Your task to perform on an android device: Open ESPN.com Image 0: 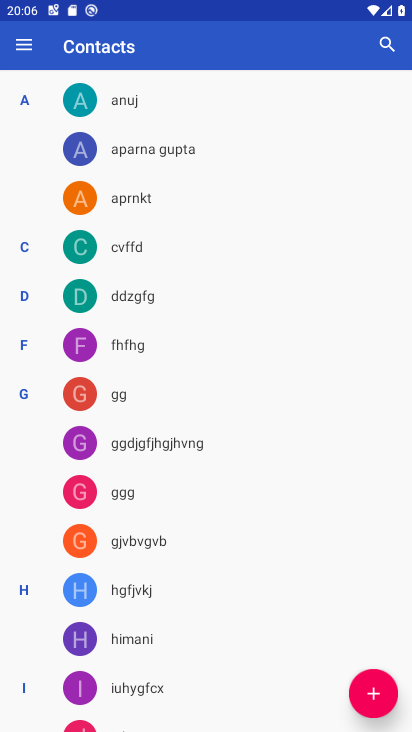
Step 0: press home button
Your task to perform on an android device: Open ESPN.com Image 1: 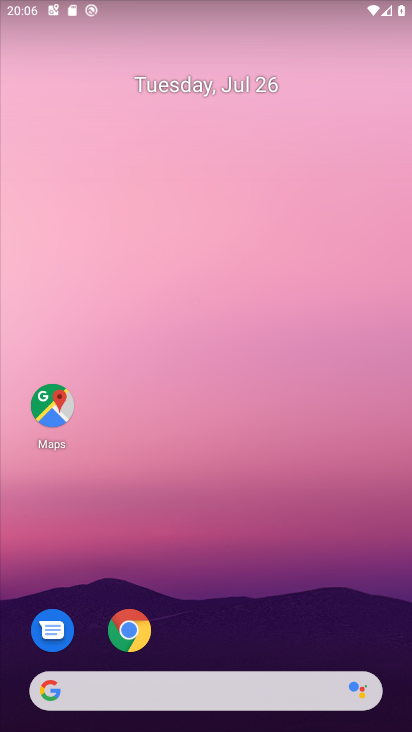
Step 1: click (132, 624)
Your task to perform on an android device: Open ESPN.com Image 2: 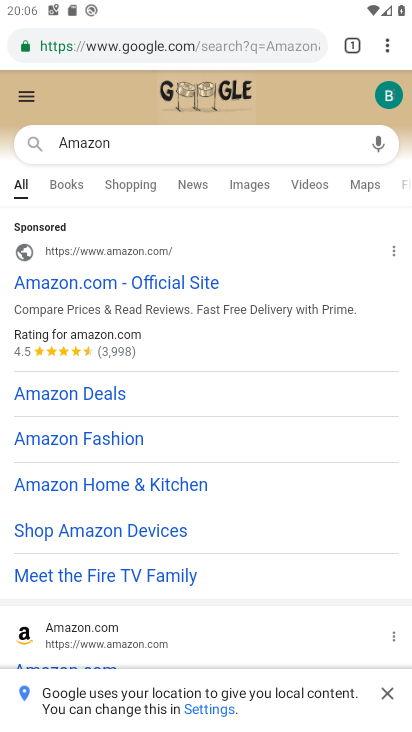
Step 2: click (293, 41)
Your task to perform on an android device: Open ESPN.com Image 3: 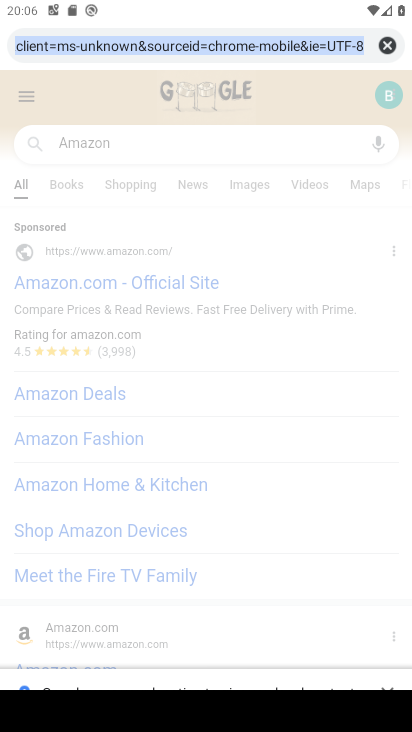
Step 3: click (391, 47)
Your task to perform on an android device: Open ESPN.com Image 4: 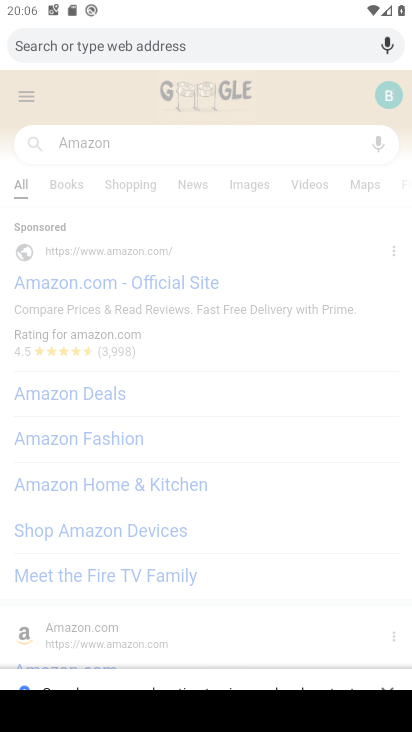
Step 4: type "ESPN.com"
Your task to perform on an android device: Open ESPN.com Image 5: 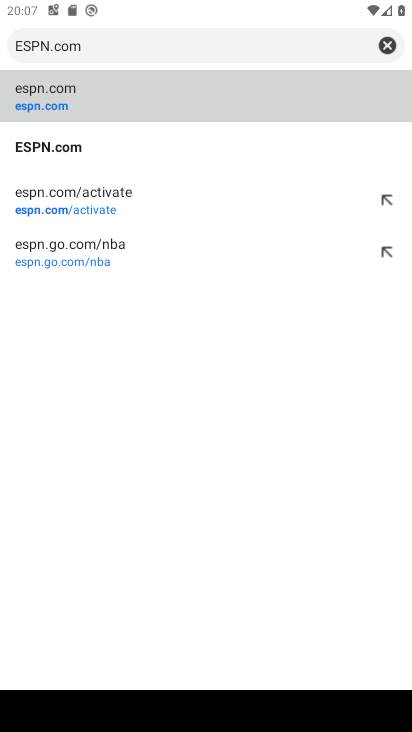
Step 5: click (29, 146)
Your task to perform on an android device: Open ESPN.com Image 6: 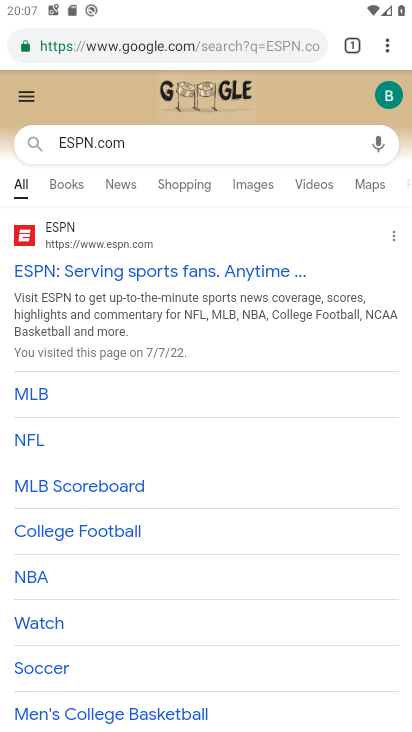
Step 6: task complete